Your task to perform on an android device: check storage Image 0: 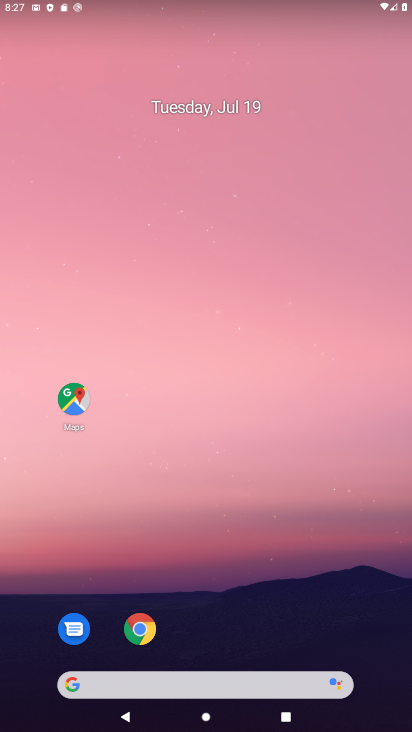
Step 0: press home button
Your task to perform on an android device: check storage Image 1: 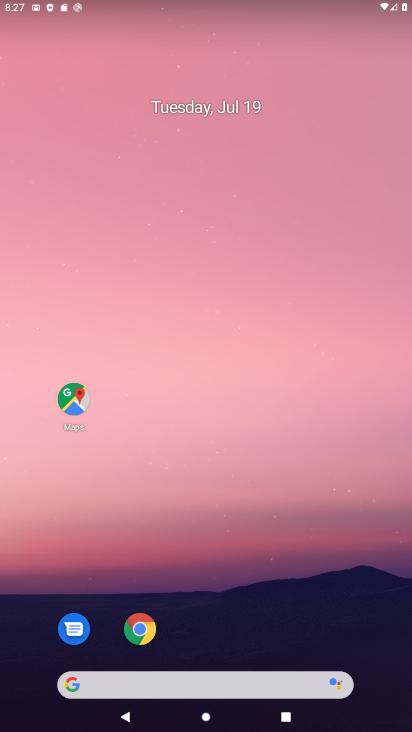
Step 1: drag from (213, 646) to (238, 2)
Your task to perform on an android device: check storage Image 2: 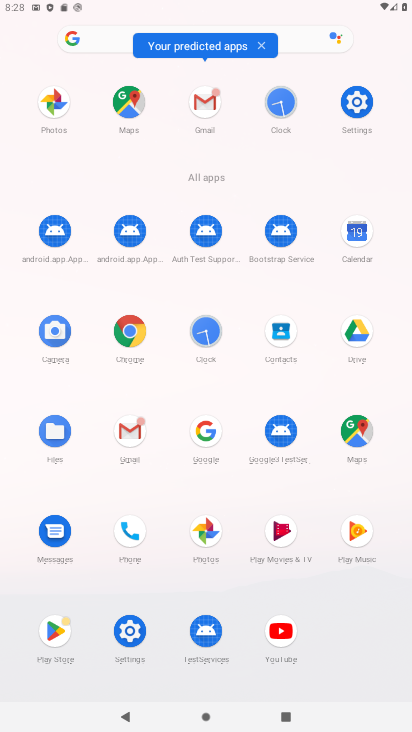
Step 2: click (120, 620)
Your task to perform on an android device: check storage Image 3: 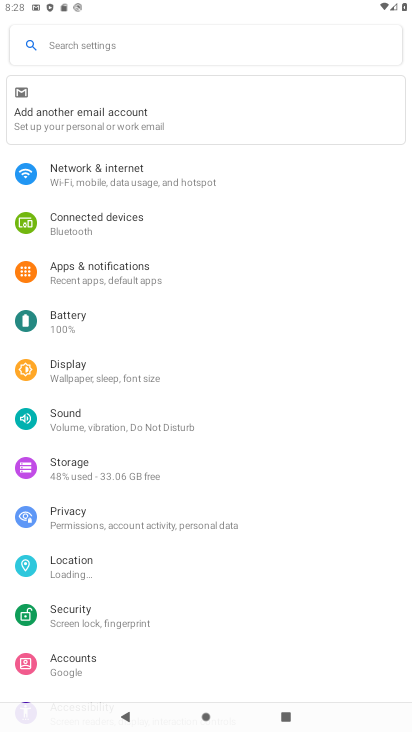
Step 3: click (88, 473)
Your task to perform on an android device: check storage Image 4: 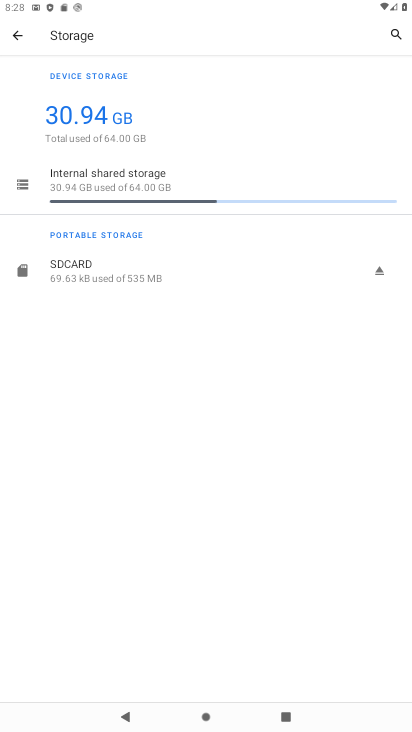
Step 4: task complete